Your task to perform on an android device: refresh tabs in the chrome app Image 0: 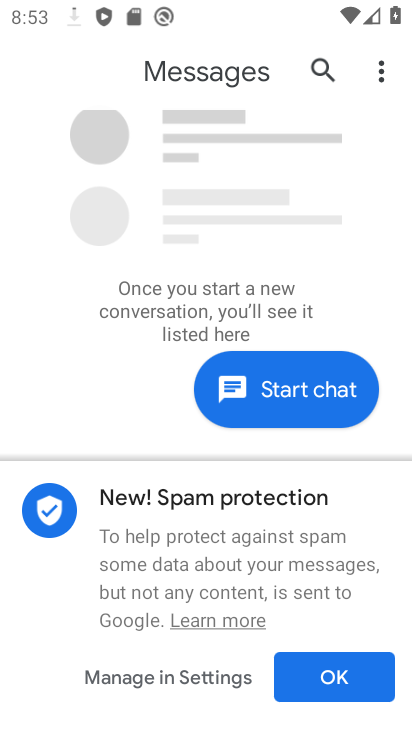
Step 0: press back button
Your task to perform on an android device: refresh tabs in the chrome app Image 1: 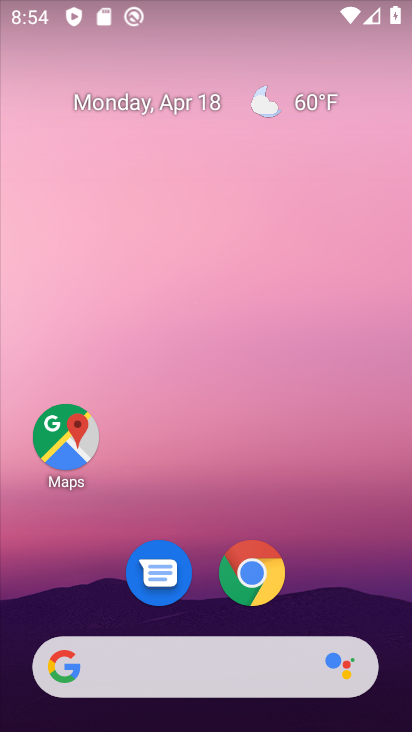
Step 1: click (249, 572)
Your task to perform on an android device: refresh tabs in the chrome app Image 2: 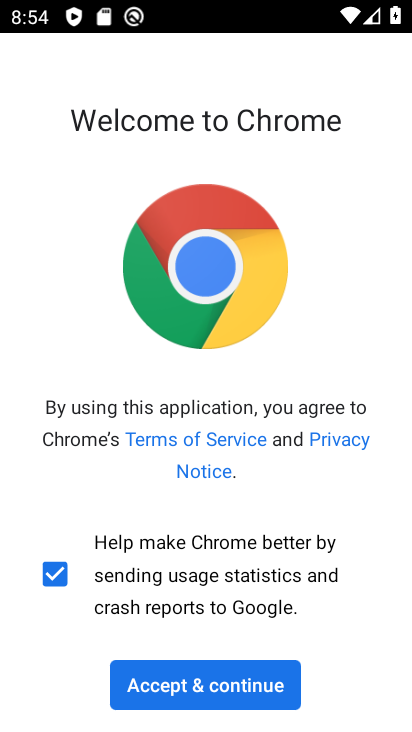
Step 2: click (205, 690)
Your task to perform on an android device: refresh tabs in the chrome app Image 3: 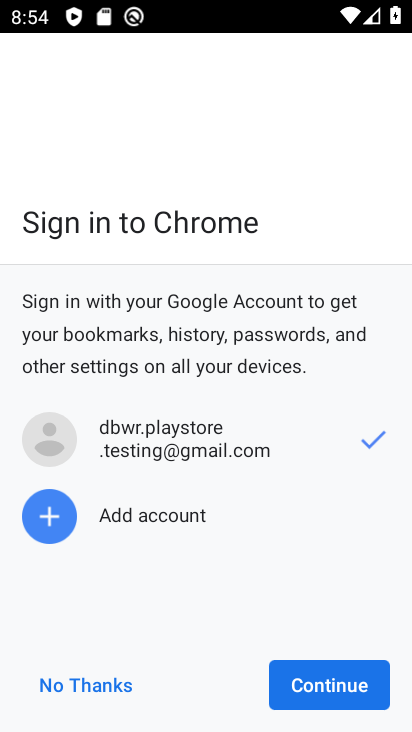
Step 3: click (322, 695)
Your task to perform on an android device: refresh tabs in the chrome app Image 4: 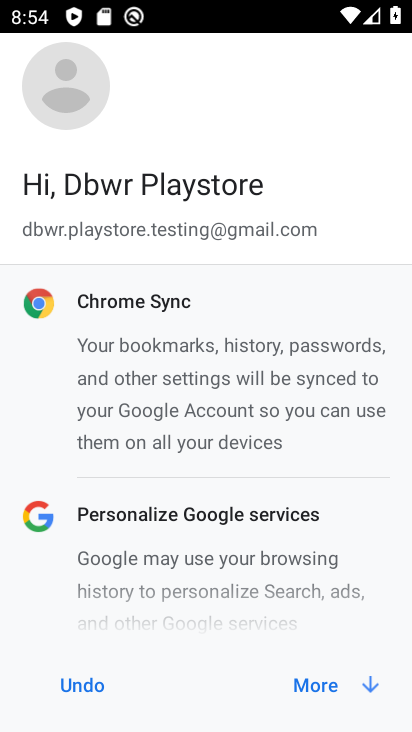
Step 4: click (317, 682)
Your task to perform on an android device: refresh tabs in the chrome app Image 5: 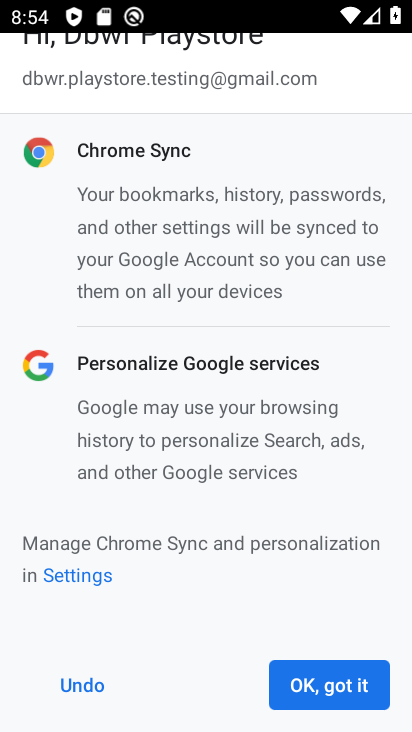
Step 5: click (317, 682)
Your task to perform on an android device: refresh tabs in the chrome app Image 6: 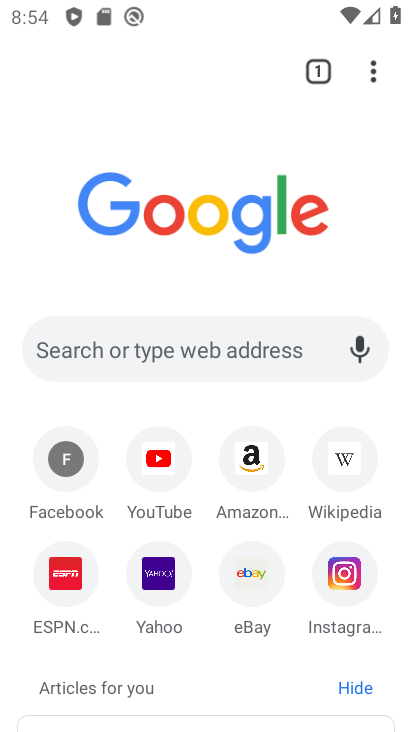
Step 6: click (374, 74)
Your task to perform on an android device: refresh tabs in the chrome app Image 7: 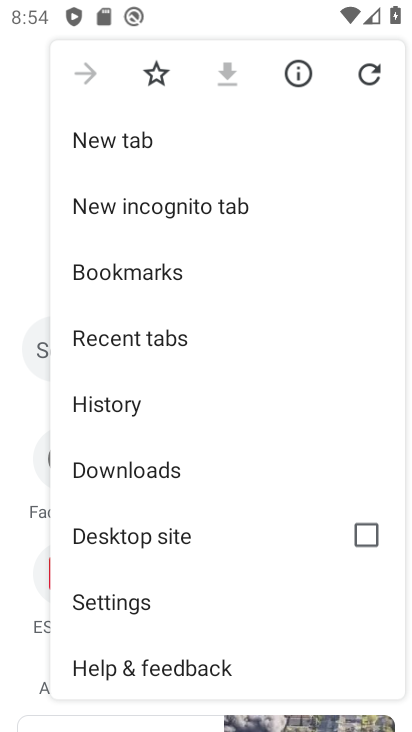
Step 7: click (372, 71)
Your task to perform on an android device: refresh tabs in the chrome app Image 8: 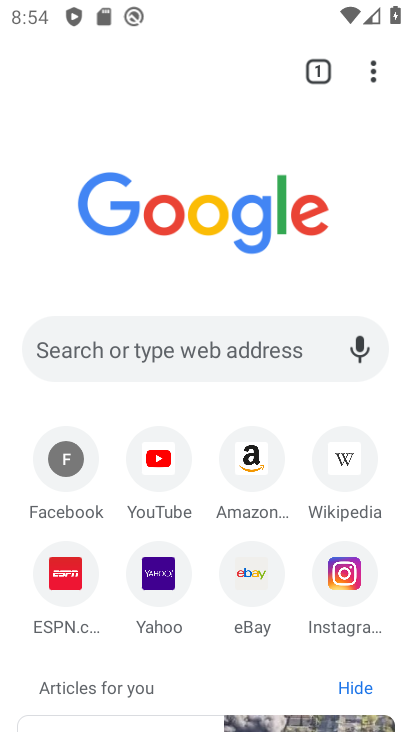
Step 8: task complete